Your task to perform on an android device: search for starred emails in the gmail app Image 0: 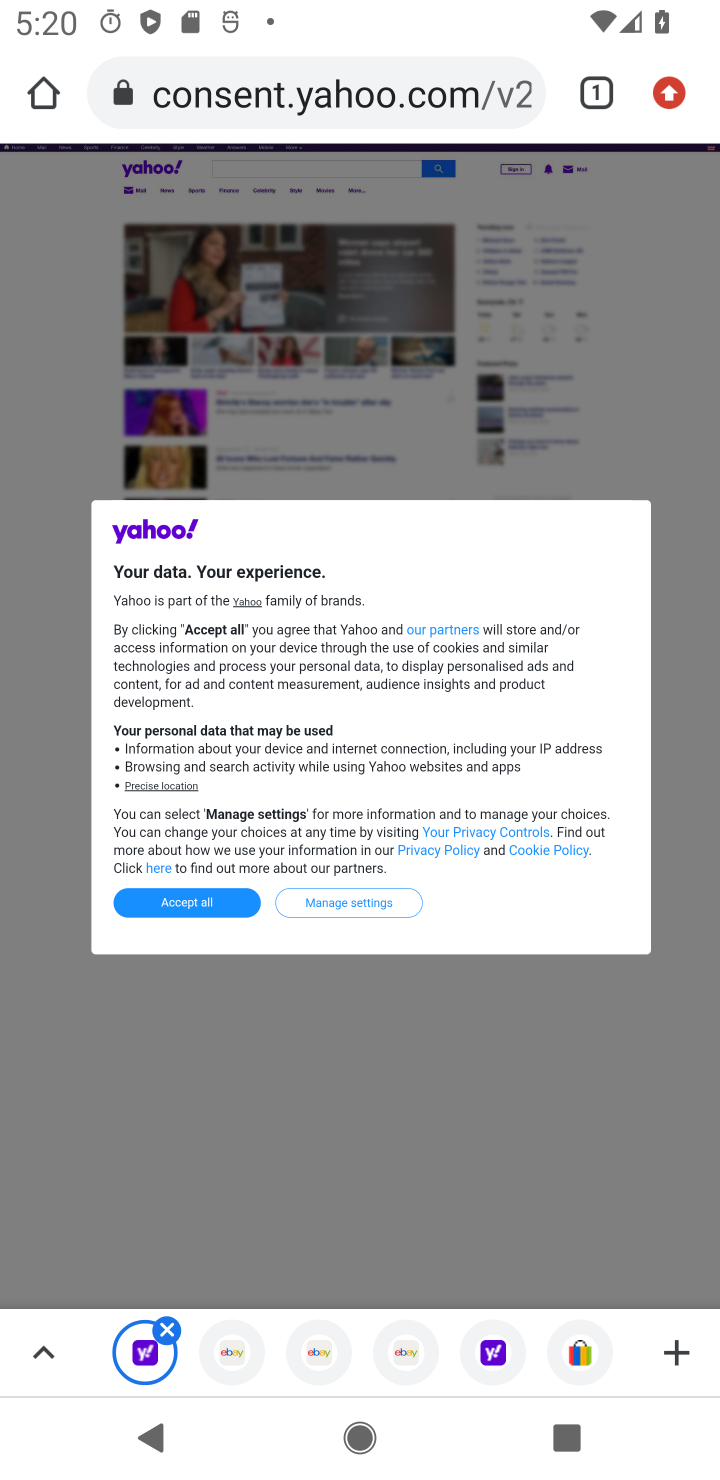
Step 0: press back button
Your task to perform on an android device: search for starred emails in the gmail app Image 1: 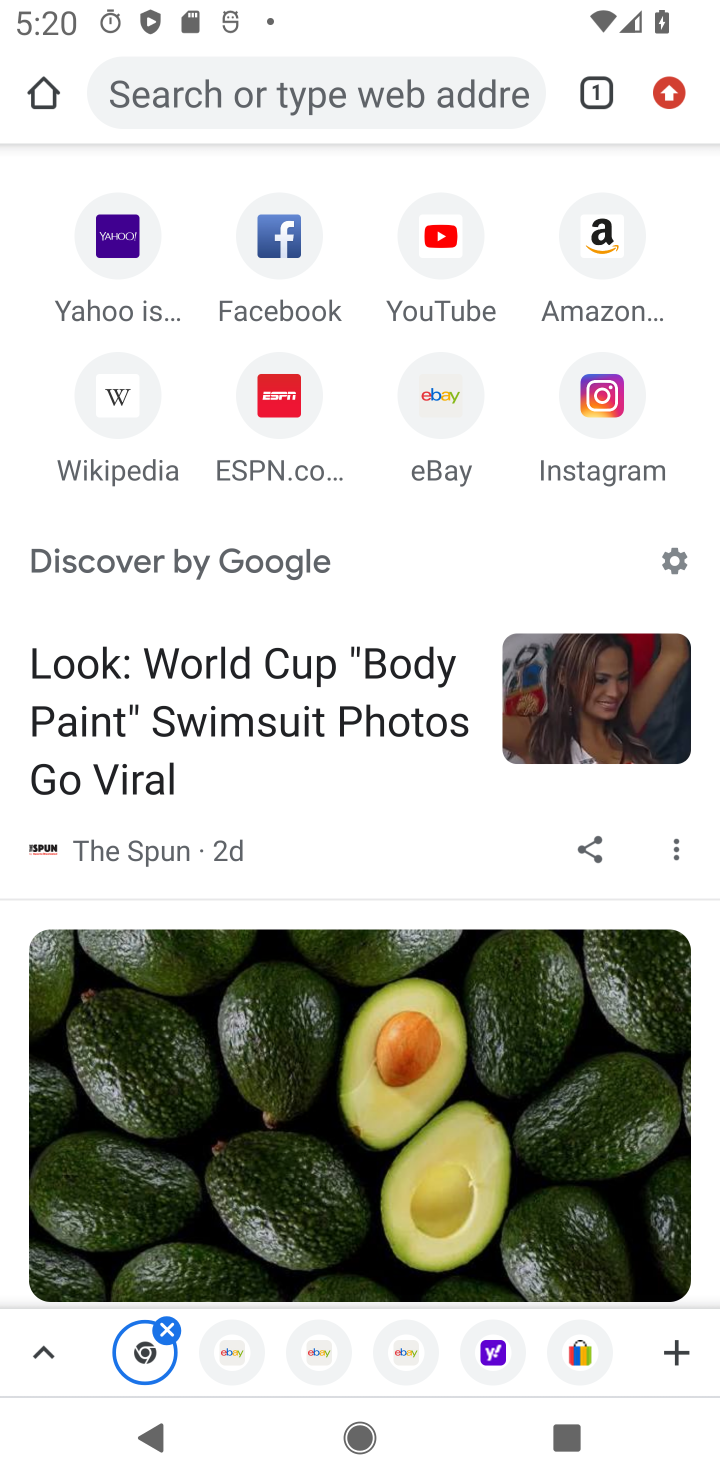
Step 1: press back button
Your task to perform on an android device: search for starred emails in the gmail app Image 2: 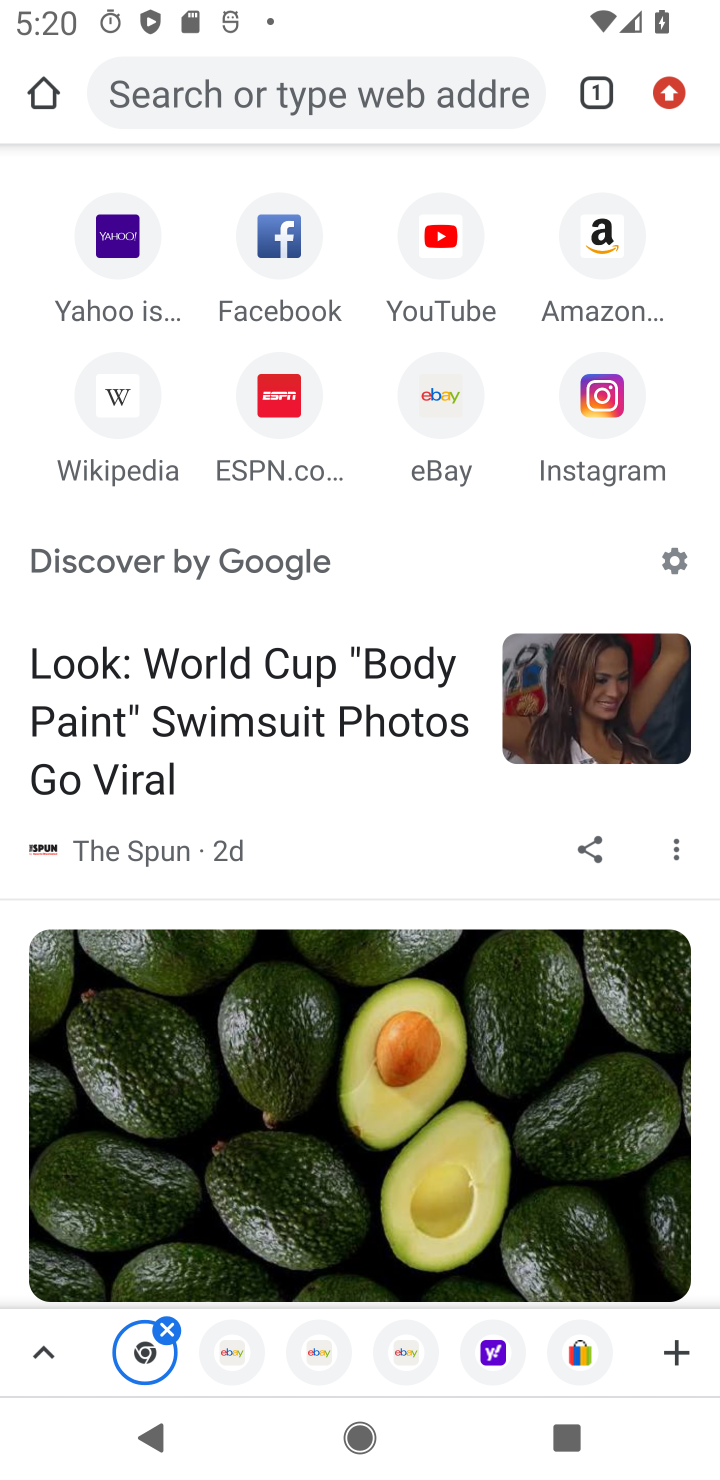
Step 2: press home button
Your task to perform on an android device: search for starred emails in the gmail app Image 3: 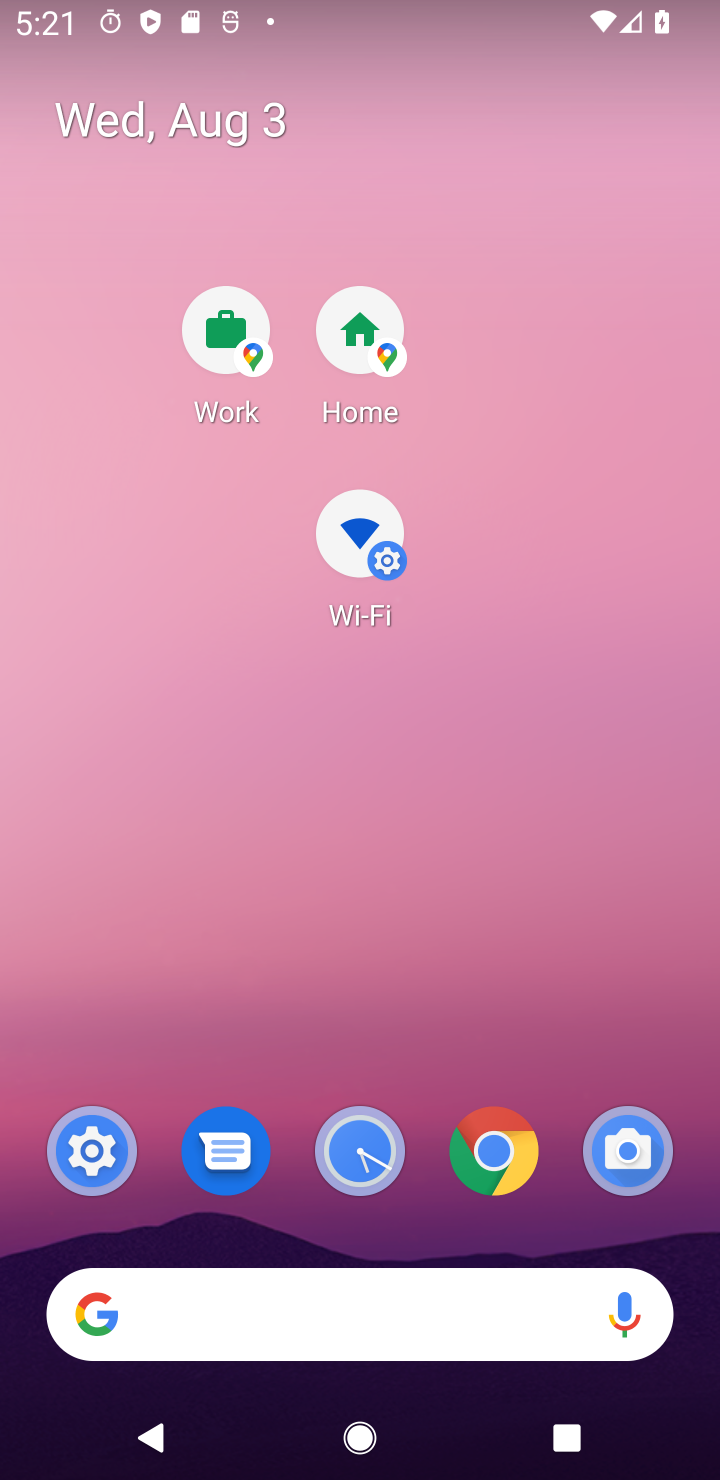
Step 3: drag from (460, 1297) to (297, 363)
Your task to perform on an android device: search for starred emails in the gmail app Image 4: 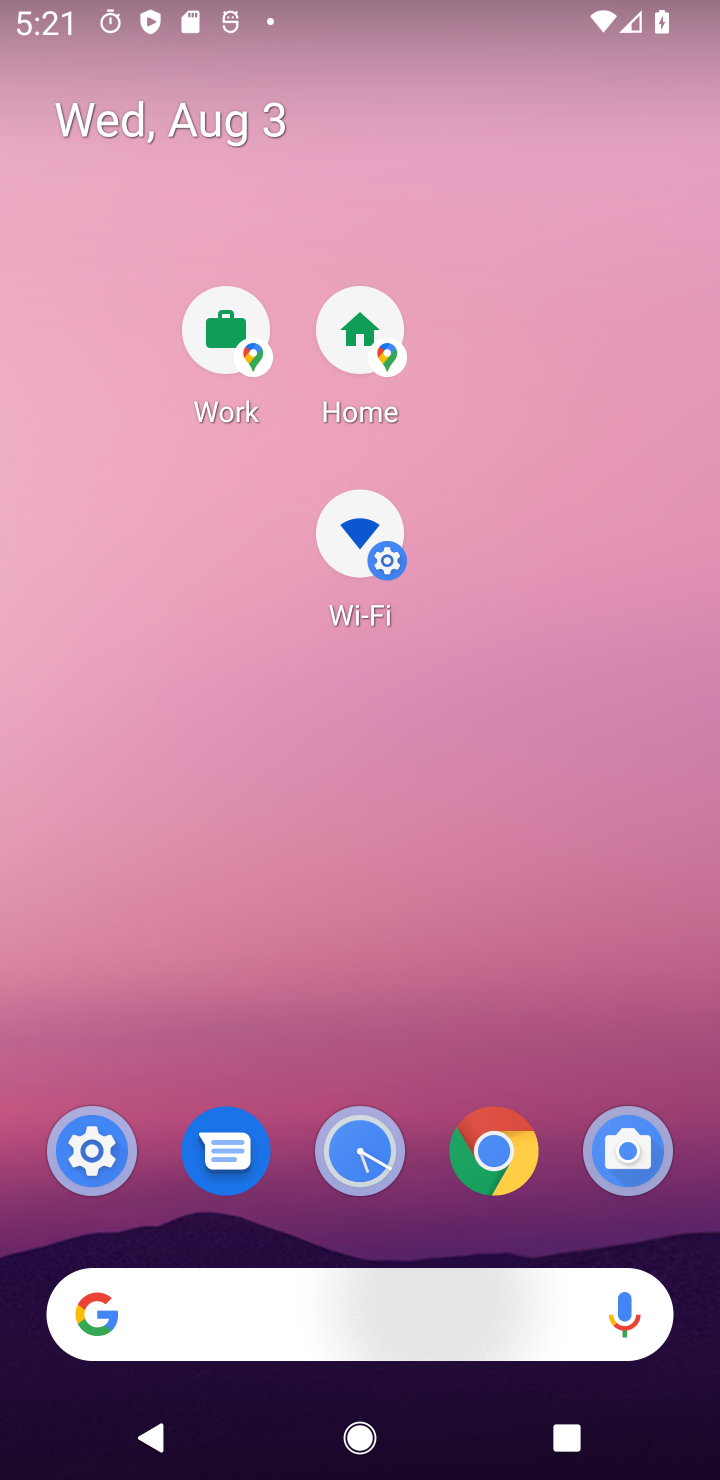
Step 4: click (335, 568)
Your task to perform on an android device: search for starred emails in the gmail app Image 5: 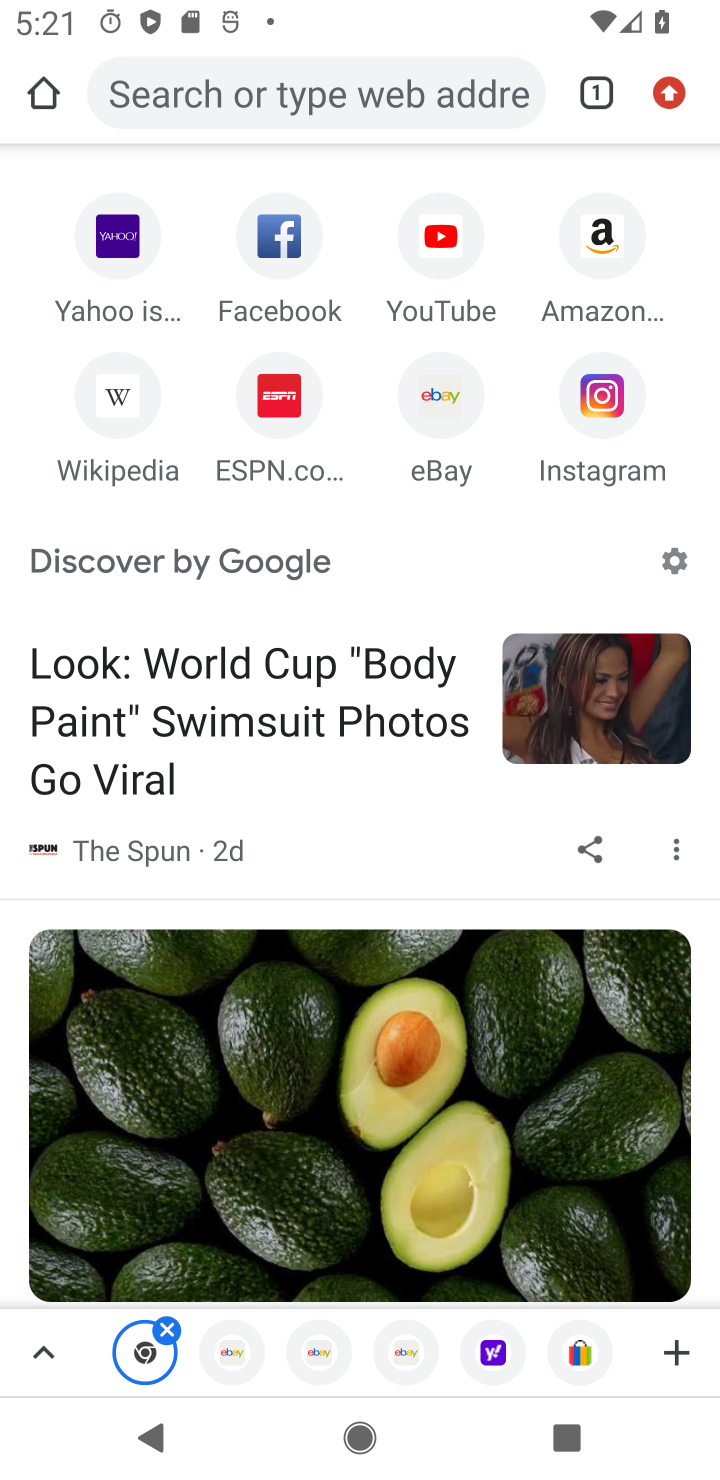
Step 5: press back button
Your task to perform on an android device: search for starred emails in the gmail app Image 6: 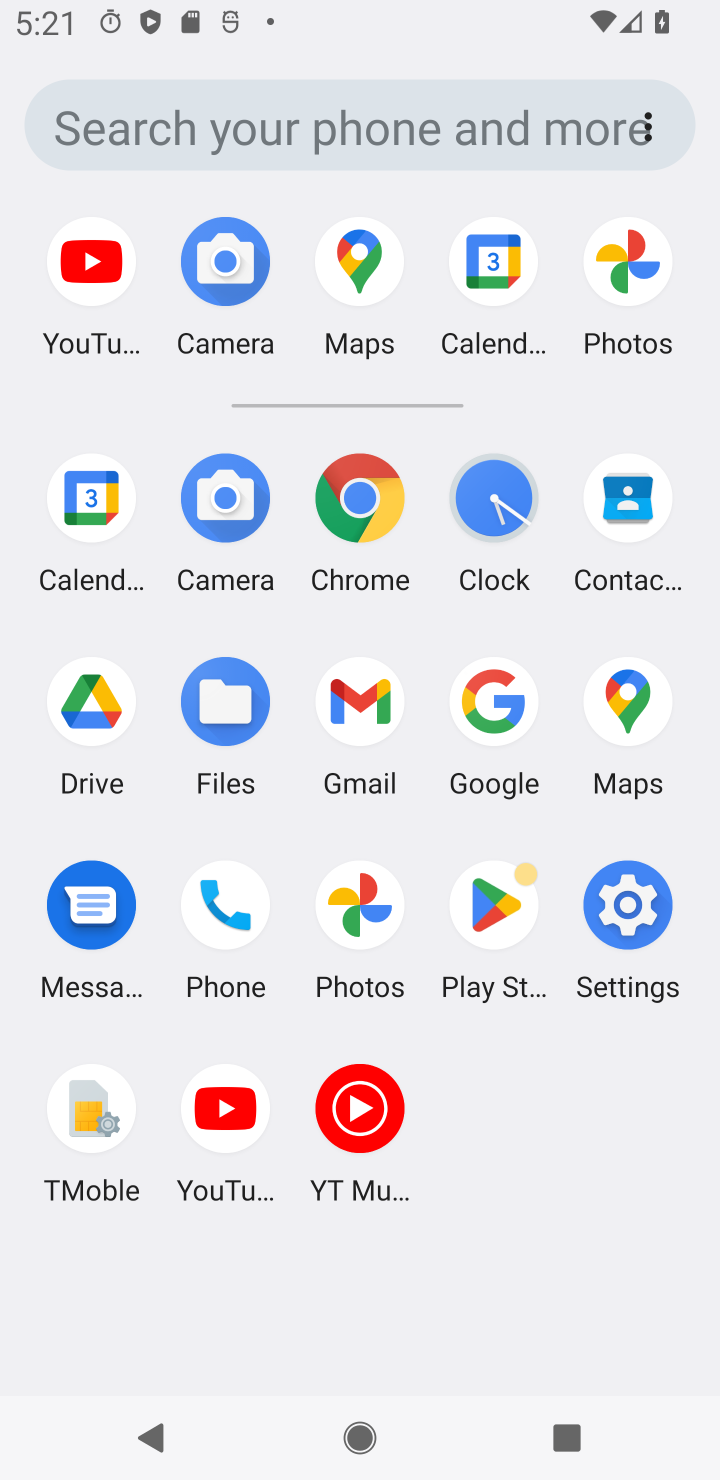
Step 6: click (361, 277)
Your task to perform on an android device: search for starred emails in the gmail app Image 7: 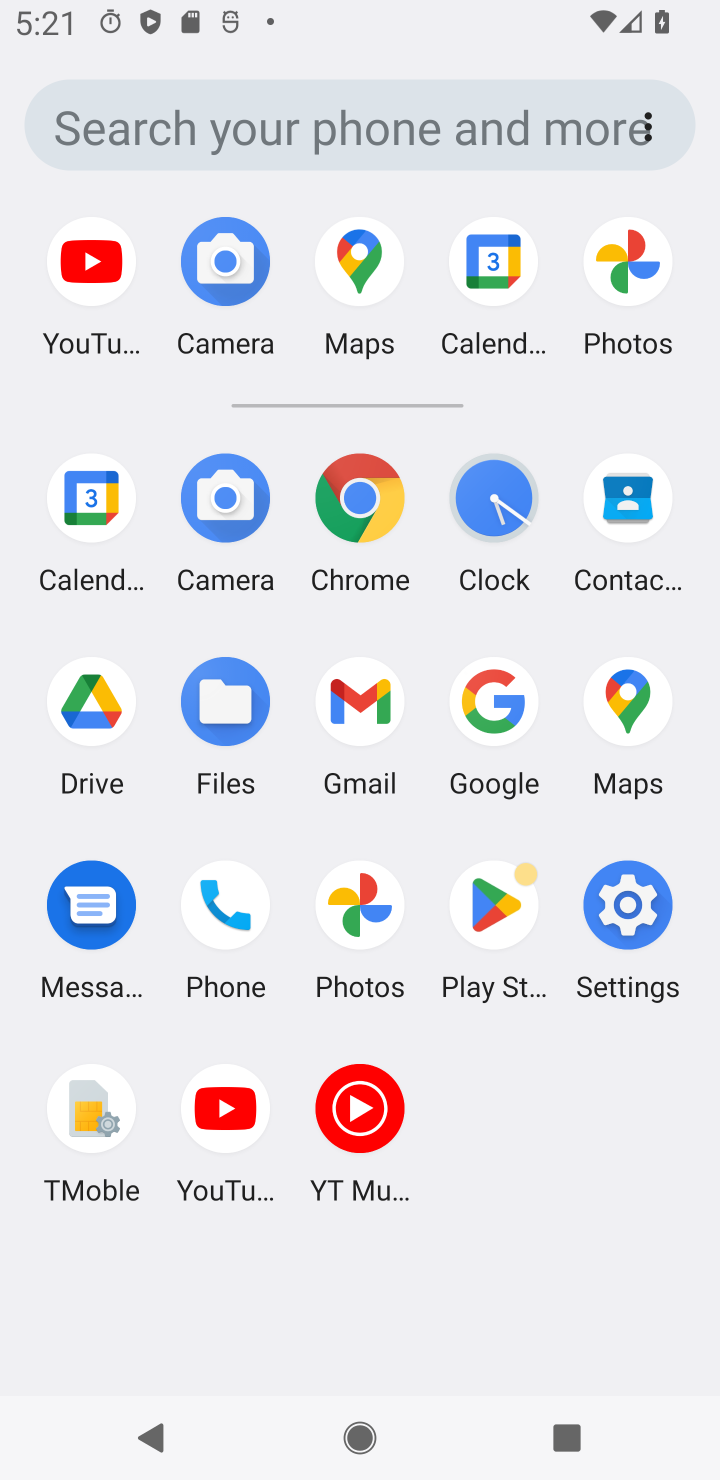
Step 7: click (361, 277)
Your task to perform on an android device: search for starred emails in the gmail app Image 8: 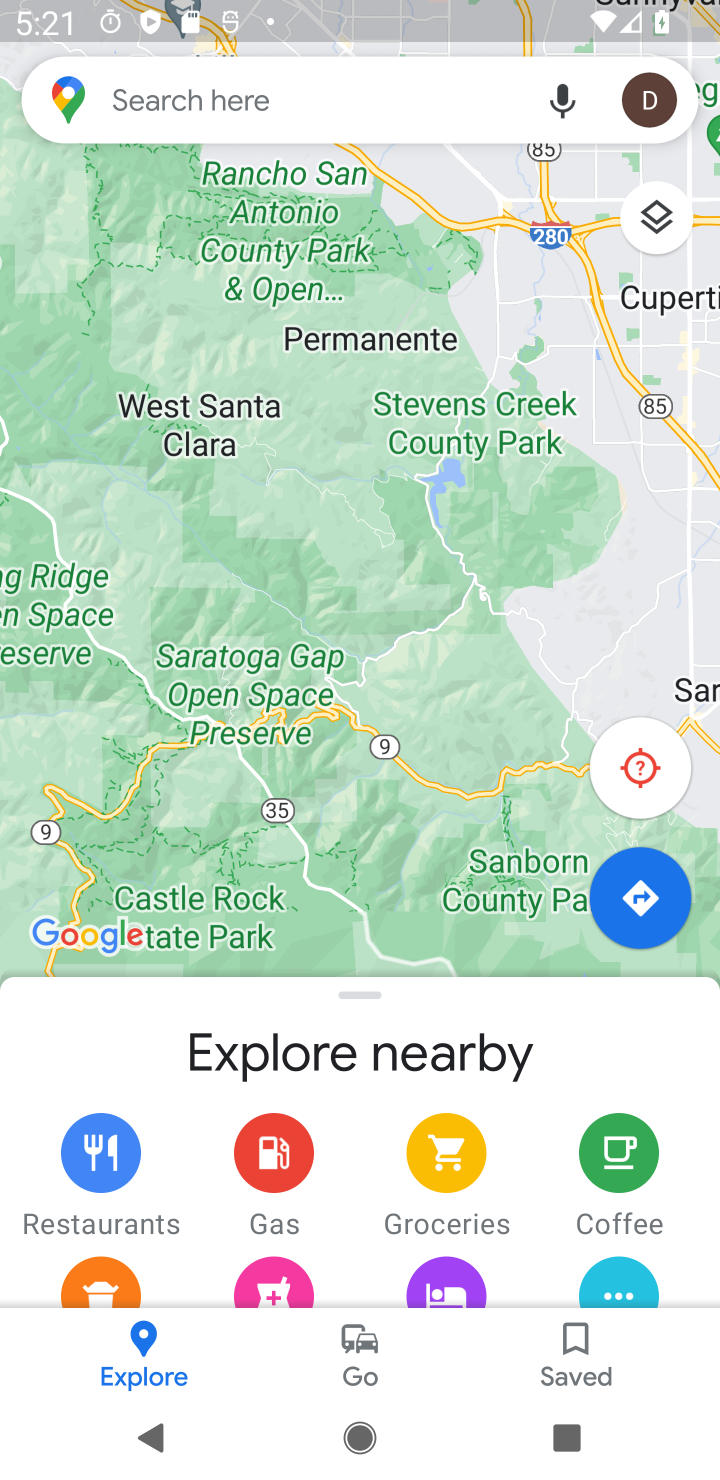
Step 8: press back button
Your task to perform on an android device: search for starred emails in the gmail app Image 9: 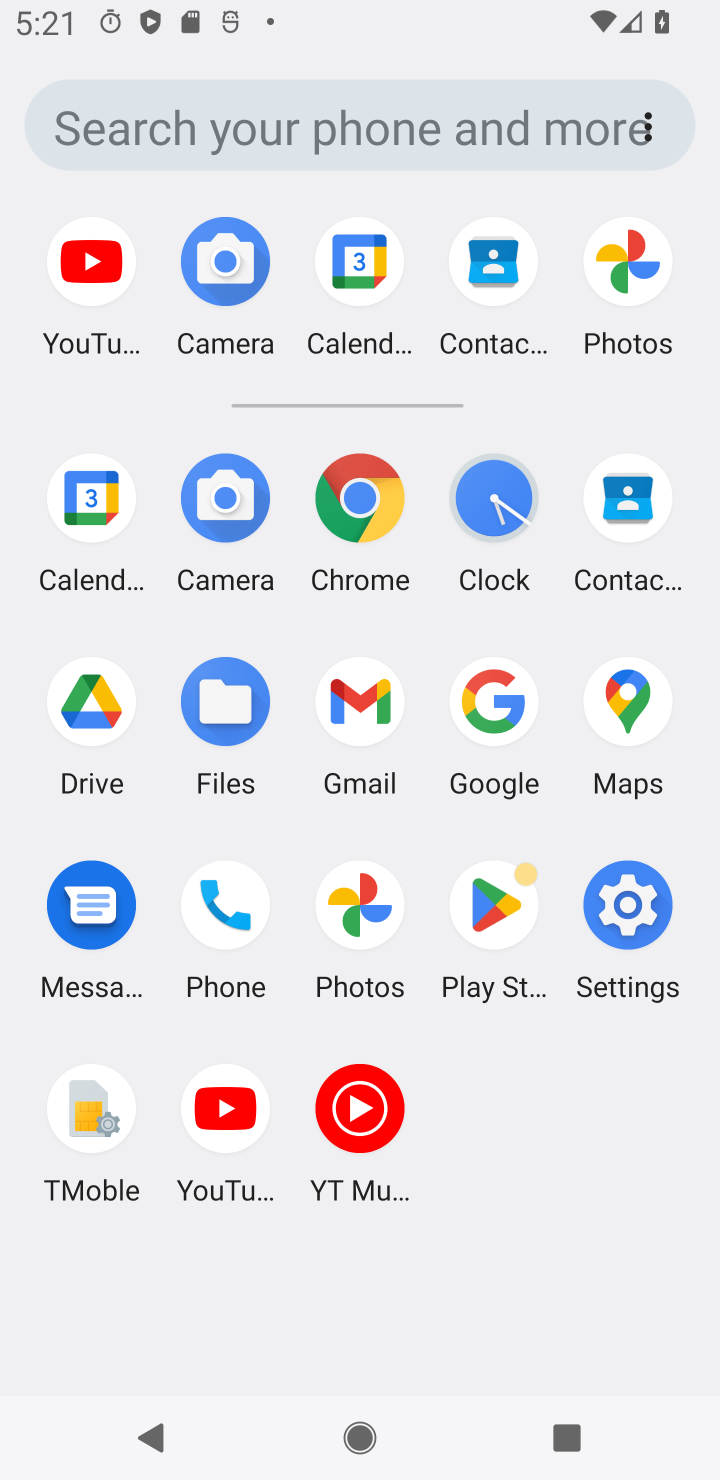
Step 9: click (360, 726)
Your task to perform on an android device: search for starred emails in the gmail app Image 10: 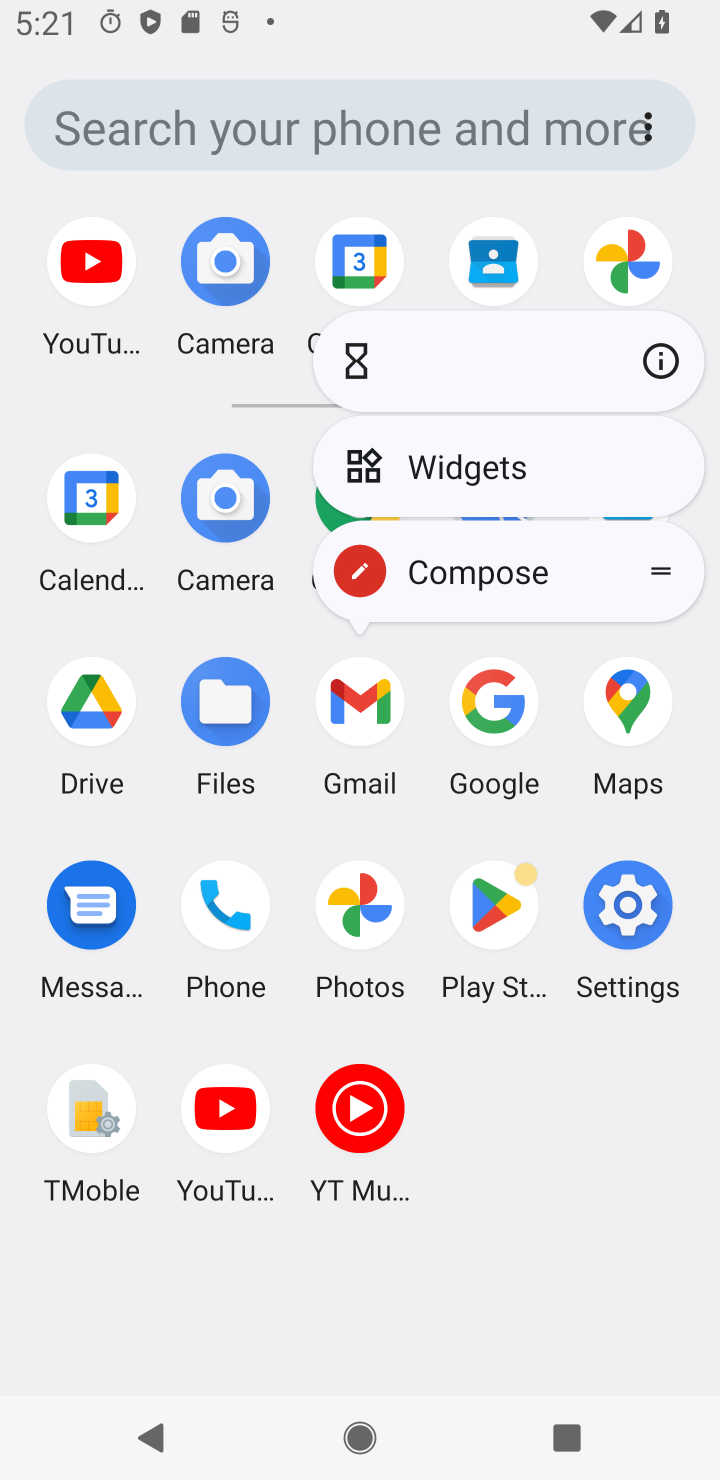
Step 10: click (343, 711)
Your task to perform on an android device: search for starred emails in the gmail app Image 11: 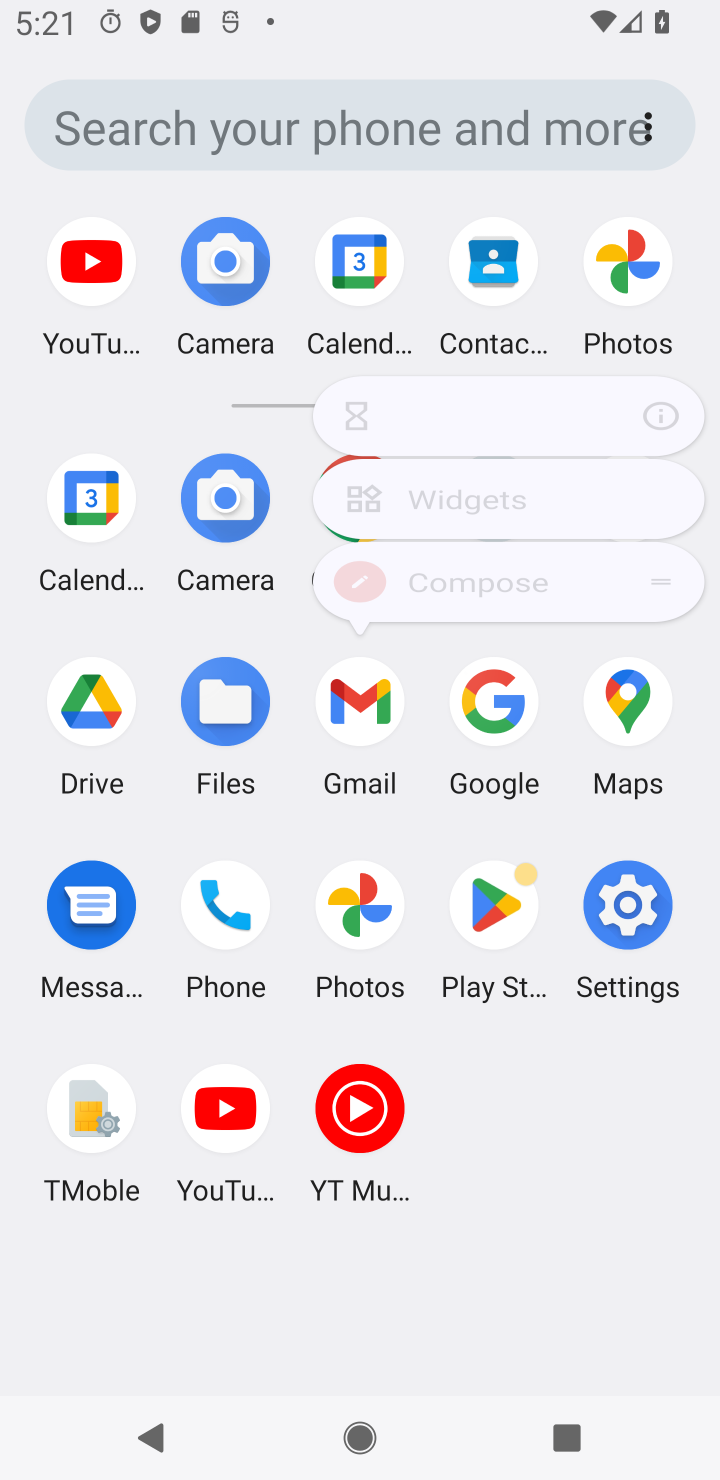
Step 11: click (341, 713)
Your task to perform on an android device: search for starred emails in the gmail app Image 12: 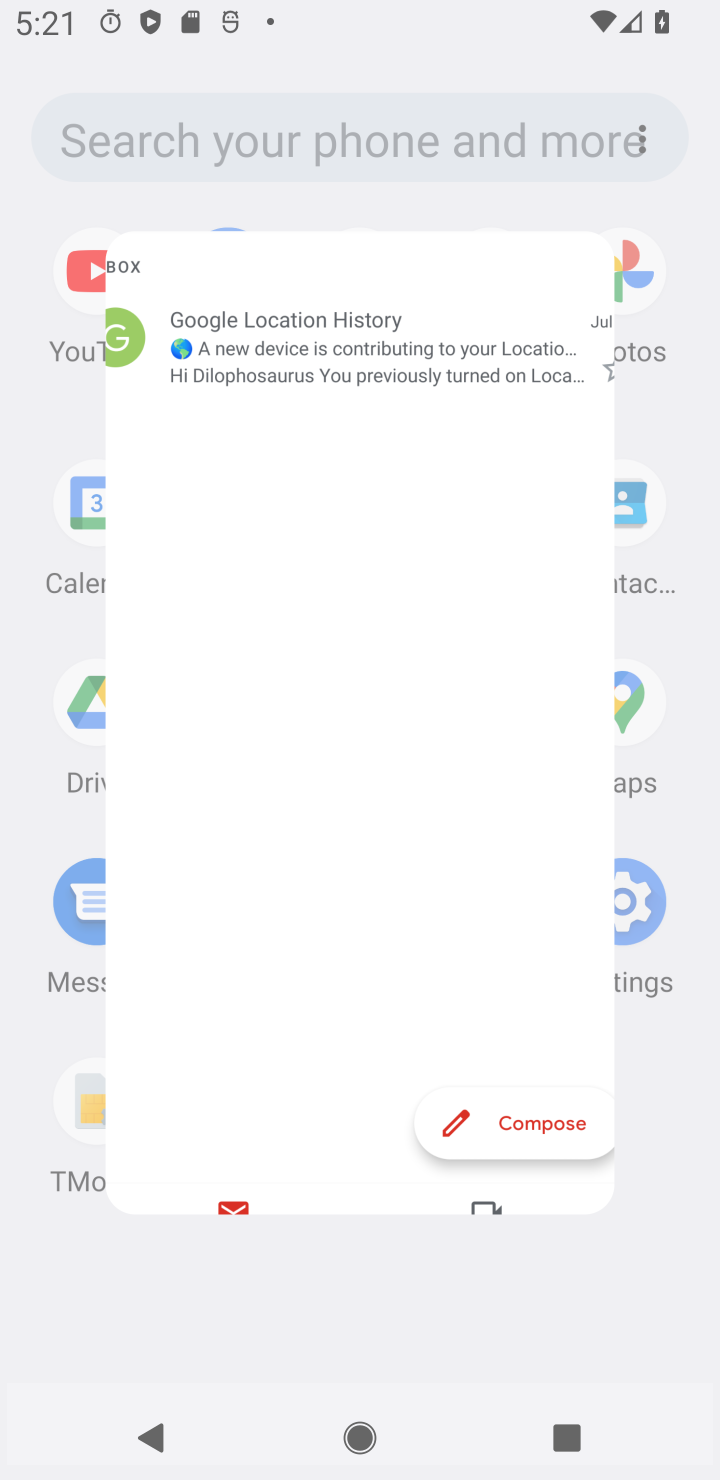
Step 12: click (346, 700)
Your task to perform on an android device: search for starred emails in the gmail app Image 13: 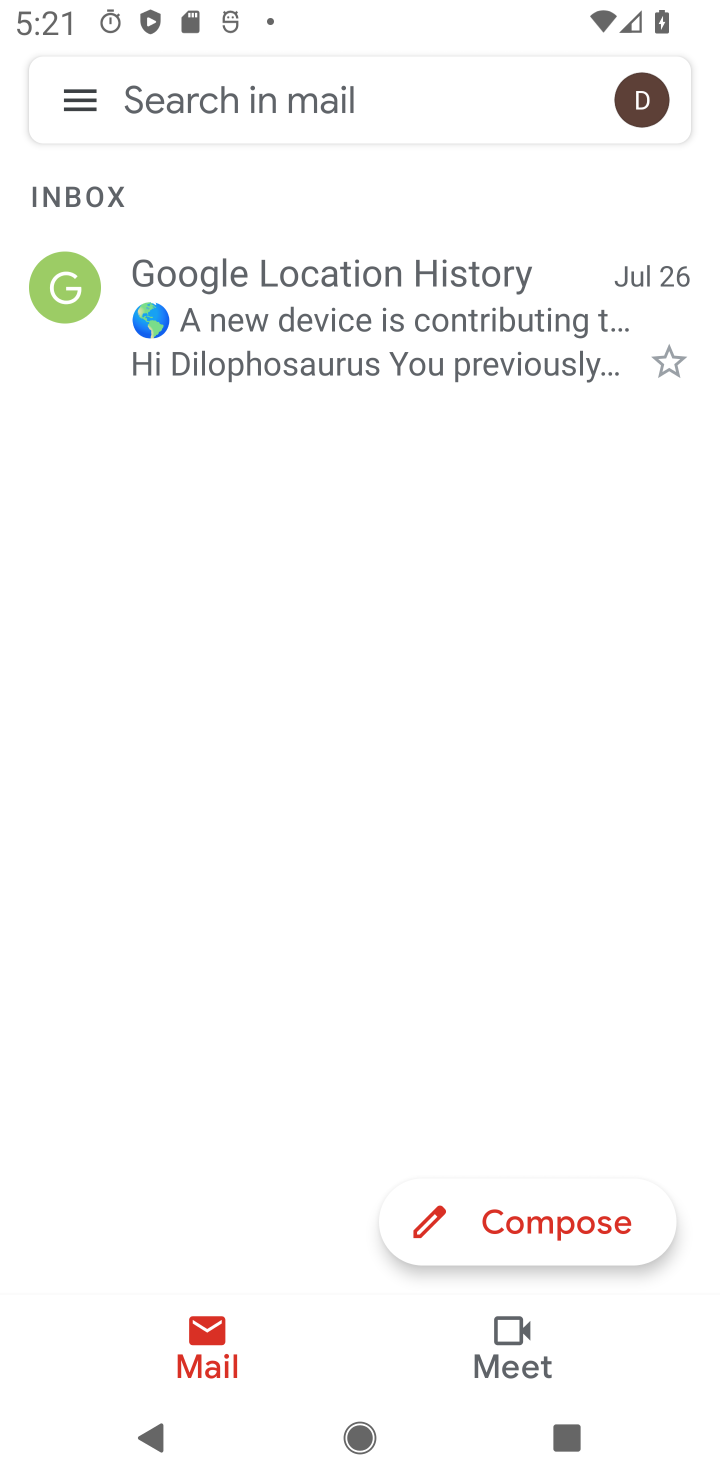
Step 13: click (64, 83)
Your task to perform on an android device: search for starred emails in the gmail app Image 14: 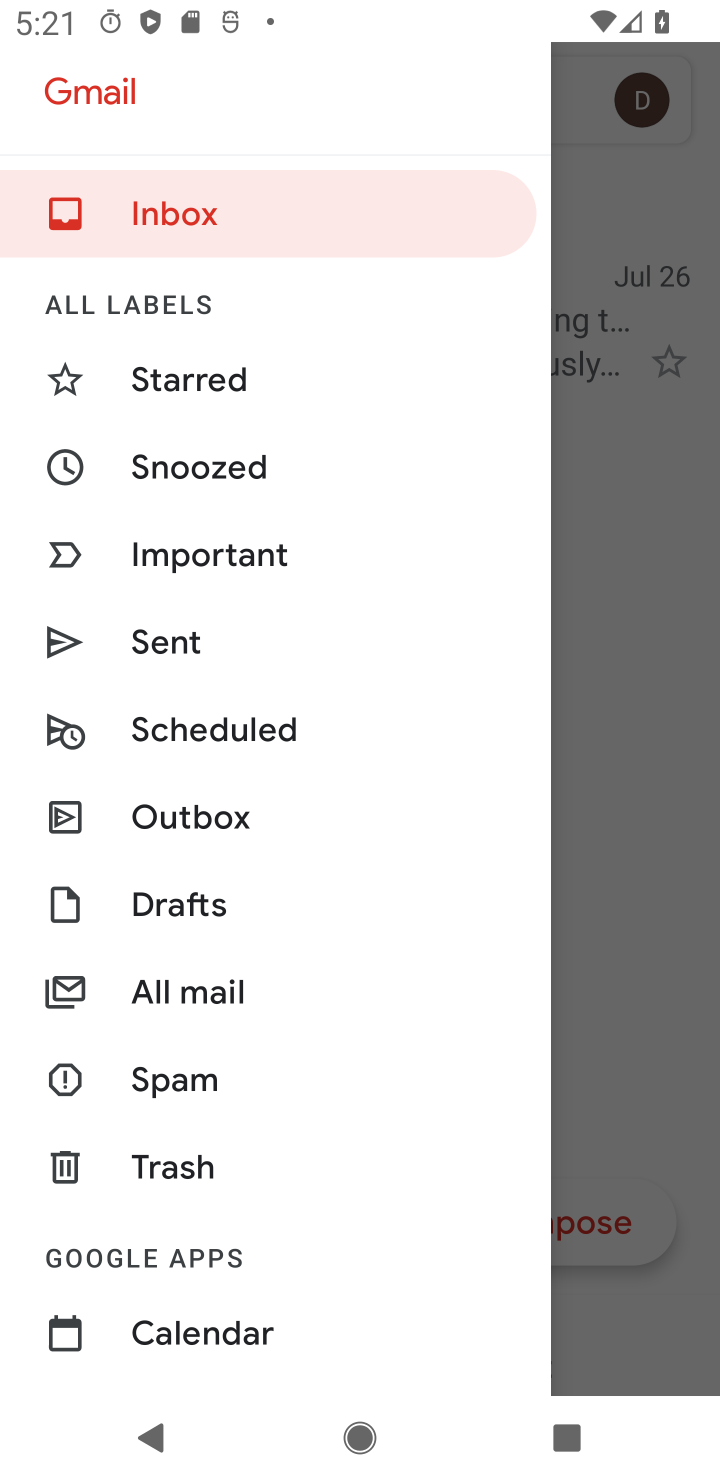
Step 14: click (632, 476)
Your task to perform on an android device: search for starred emails in the gmail app Image 15: 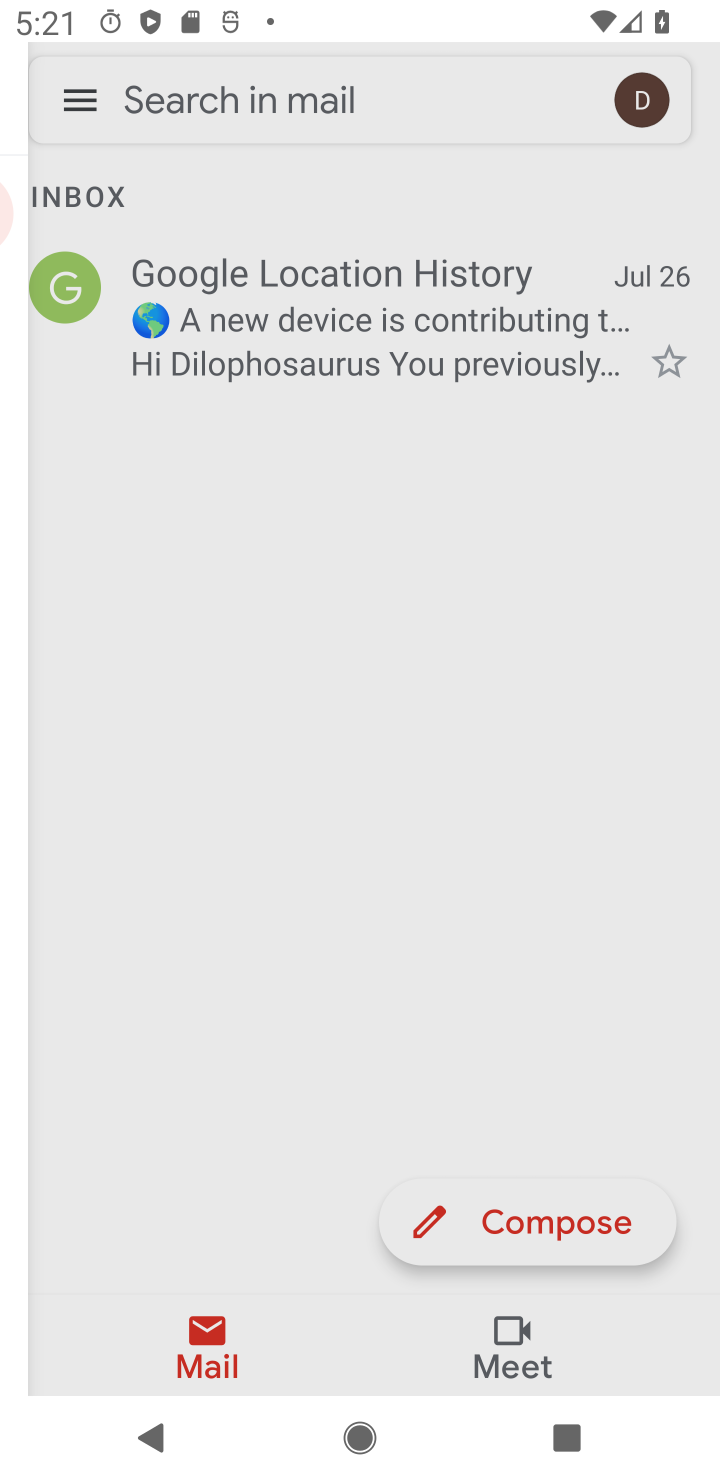
Step 15: click (226, 378)
Your task to perform on an android device: search for starred emails in the gmail app Image 16: 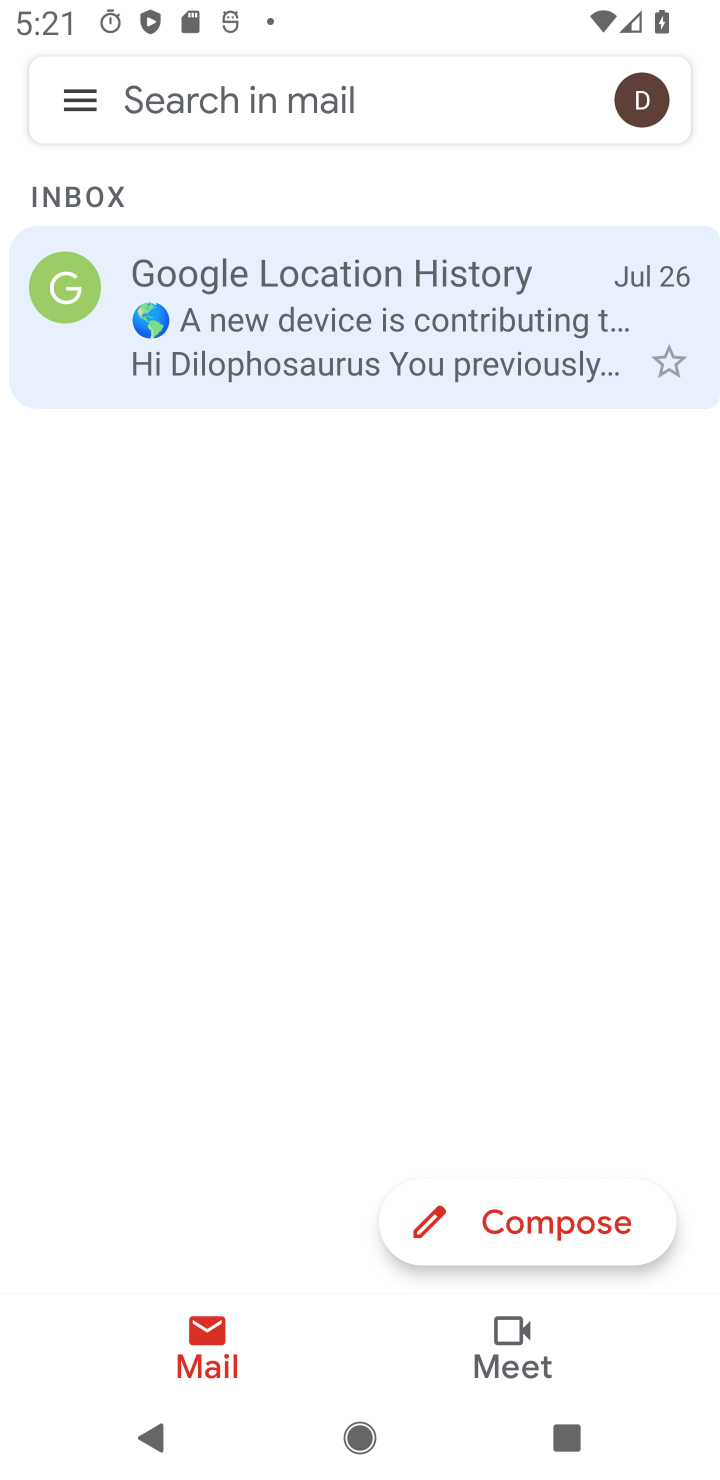
Step 16: click (230, 374)
Your task to perform on an android device: search for starred emails in the gmail app Image 17: 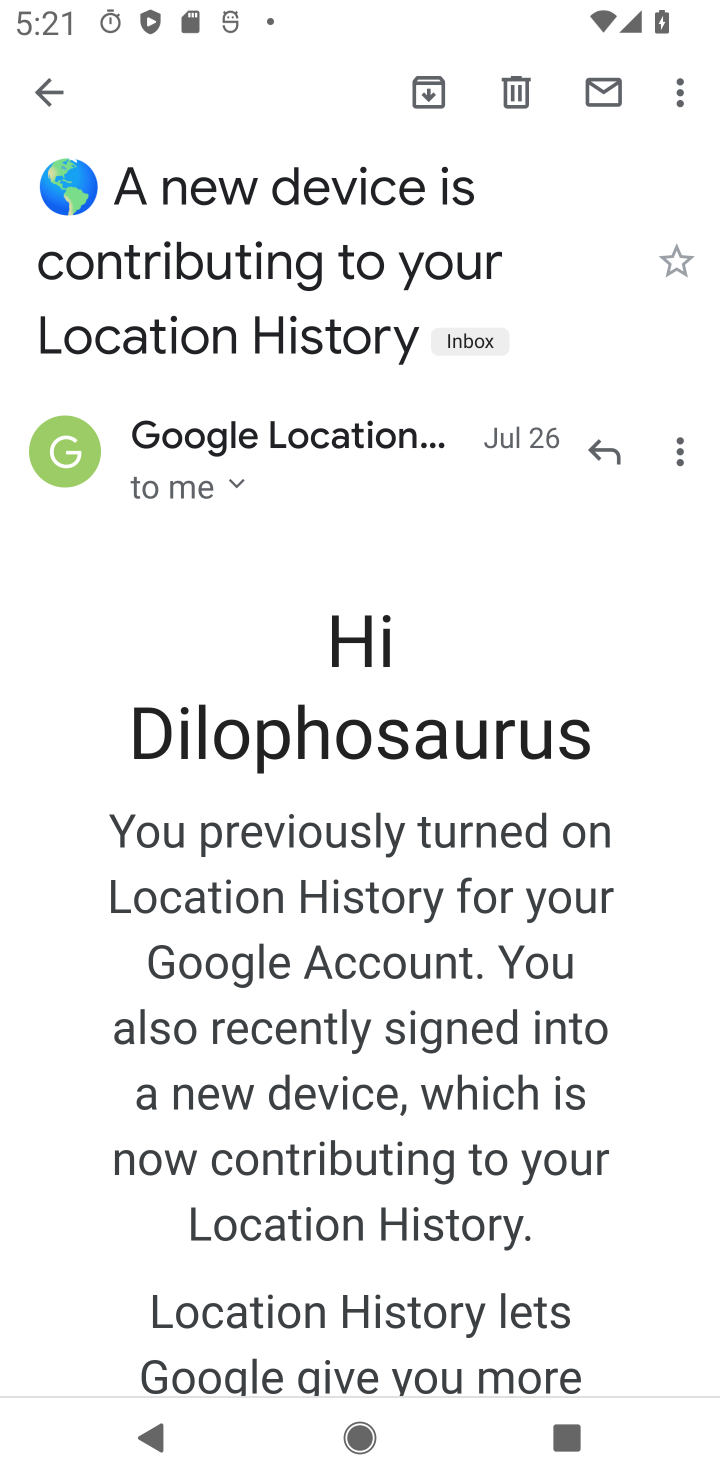
Step 17: task complete